Your task to perform on an android device: turn on translation in the chrome app Image 0: 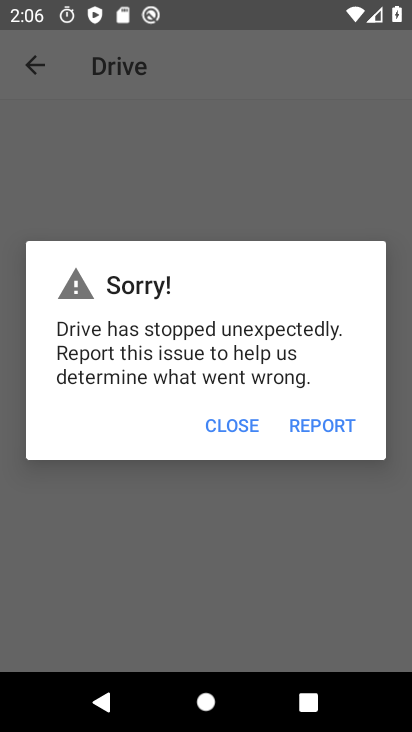
Step 0: press home button
Your task to perform on an android device: turn on translation in the chrome app Image 1: 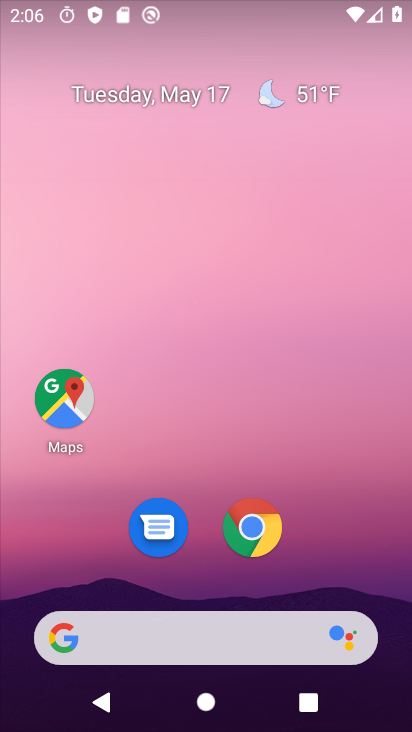
Step 1: click (250, 523)
Your task to perform on an android device: turn on translation in the chrome app Image 2: 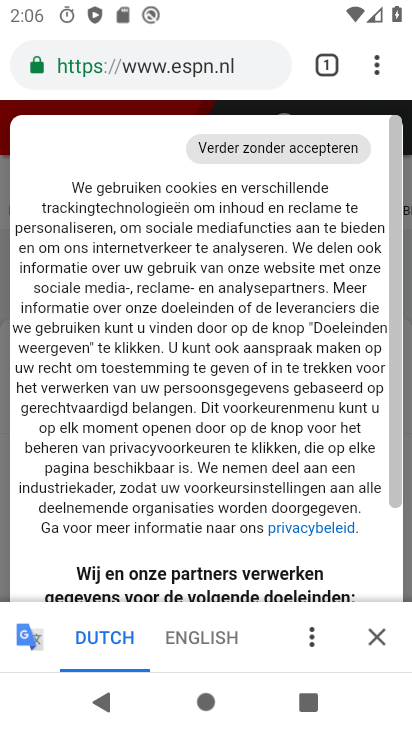
Step 2: click (378, 62)
Your task to perform on an android device: turn on translation in the chrome app Image 3: 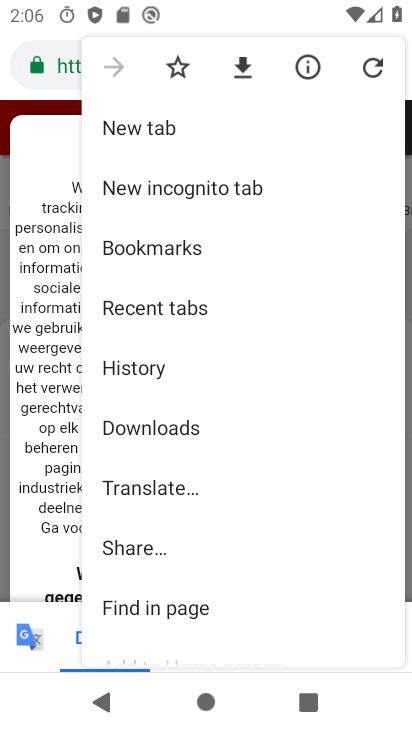
Step 3: drag from (217, 534) to (280, 454)
Your task to perform on an android device: turn on translation in the chrome app Image 4: 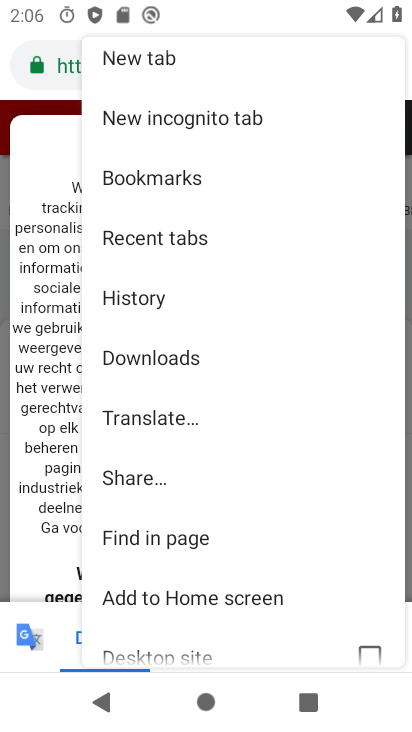
Step 4: drag from (198, 564) to (248, 477)
Your task to perform on an android device: turn on translation in the chrome app Image 5: 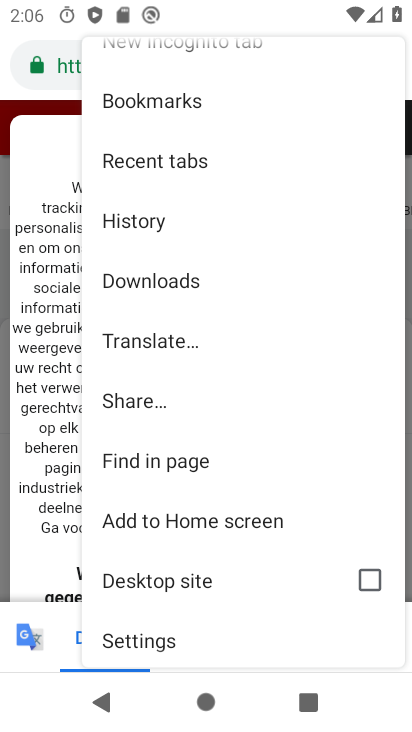
Step 5: drag from (178, 558) to (210, 469)
Your task to perform on an android device: turn on translation in the chrome app Image 6: 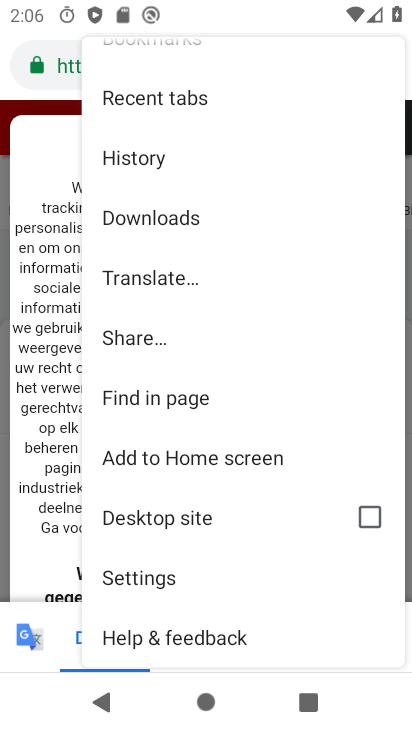
Step 6: click (155, 584)
Your task to perform on an android device: turn on translation in the chrome app Image 7: 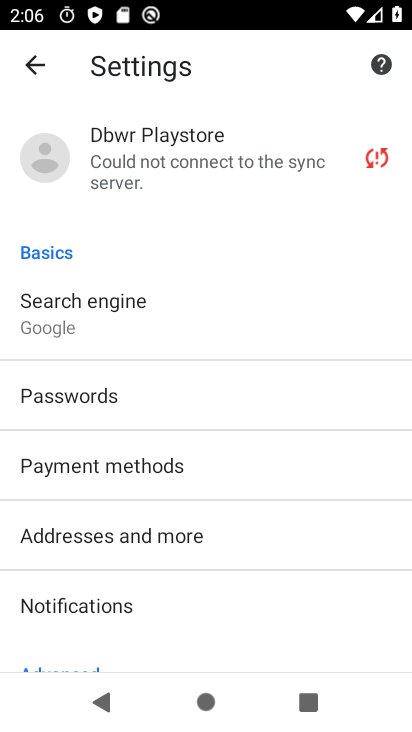
Step 7: drag from (144, 489) to (236, 389)
Your task to perform on an android device: turn on translation in the chrome app Image 8: 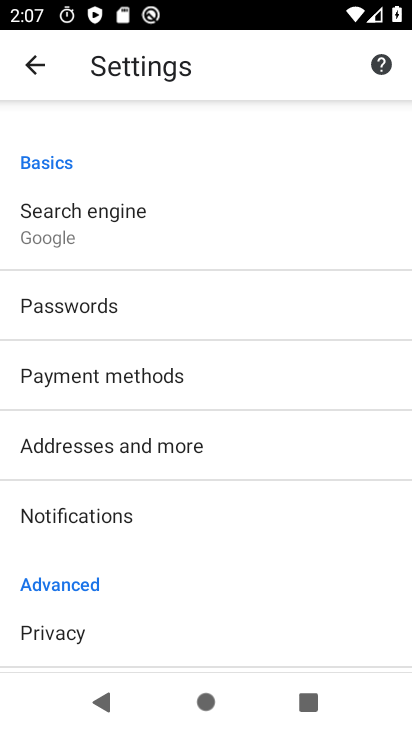
Step 8: drag from (164, 517) to (214, 394)
Your task to perform on an android device: turn on translation in the chrome app Image 9: 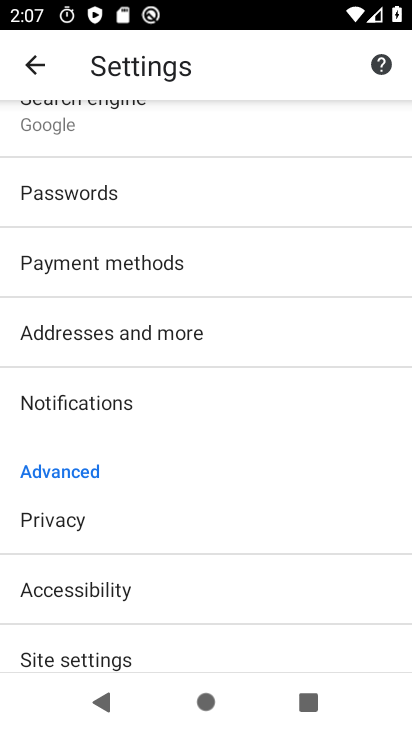
Step 9: drag from (166, 464) to (215, 392)
Your task to perform on an android device: turn on translation in the chrome app Image 10: 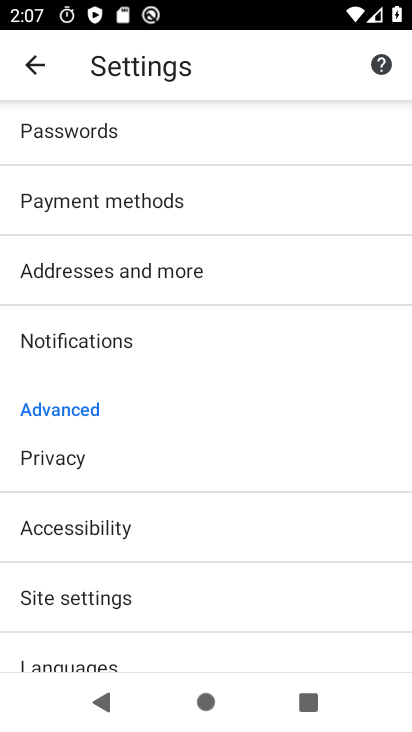
Step 10: drag from (158, 528) to (190, 439)
Your task to perform on an android device: turn on translation in the chrome app Image 11: 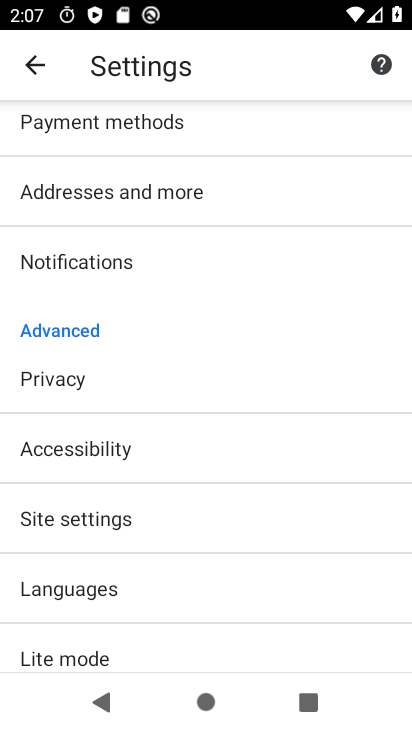
Step 11: drag from (136, 586) to (161, 486)
Your task to perform on an android device: turn on translation in the chrome app Image 12: 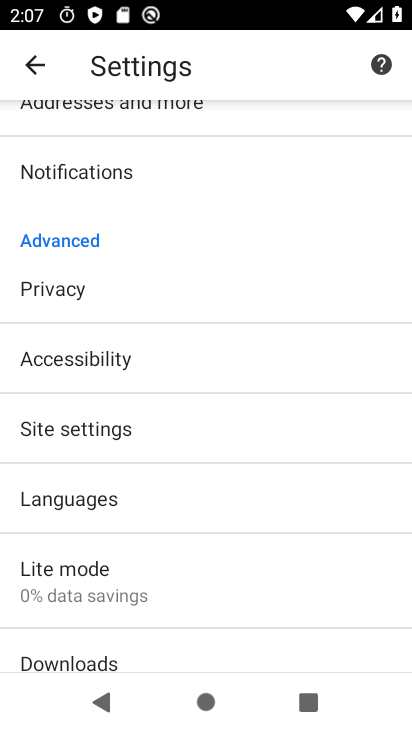
Step 12: click (98, 501)
Your task to perform on an android device: turn on translation in the chrome app Image 13: 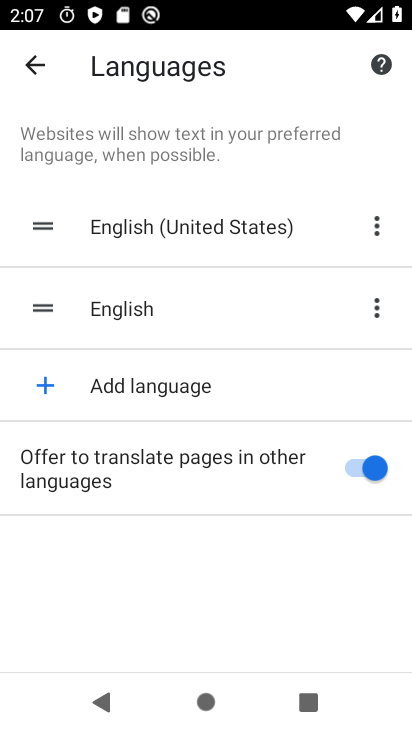
Step 13: task complete